Your task to perform on an android device: Open Google Maps and go to "Timeline" Image 0: 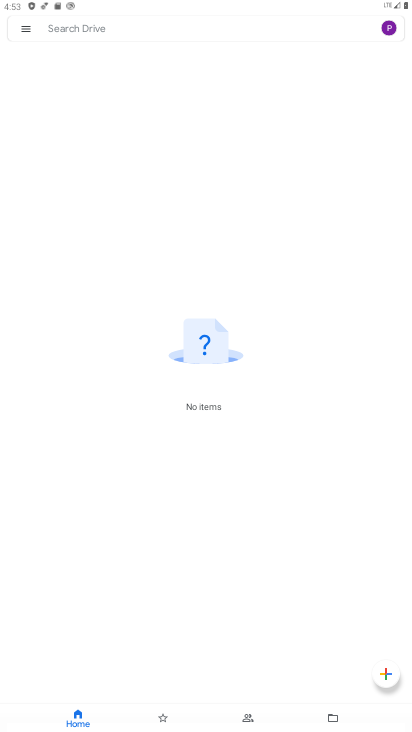
Step 0: press home button
Your task to perform on an android device: Open Google Maps and go to "Timeline" Image 1: 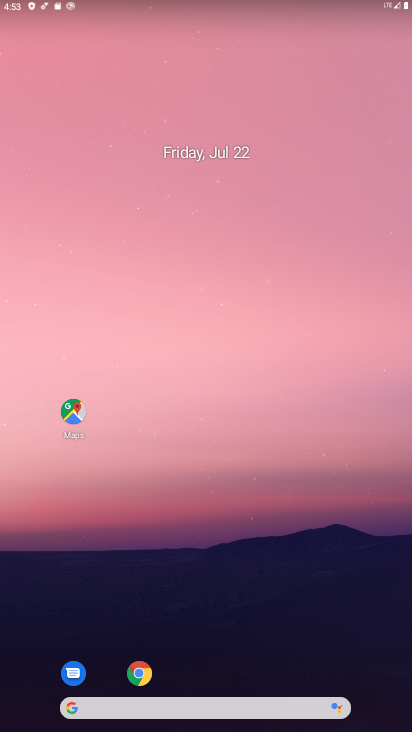
Step 1: click (63, 405)
Your task to perform on an android device: Open Google Maps and go to "Timeline" Image 2: 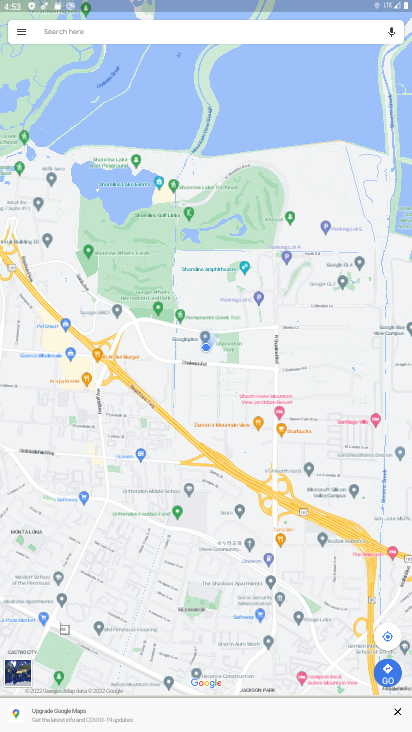
Step 2: click (24, 31)
Your task to perform on an android device: Open Google Maps and go to "Timeline" Image 3: 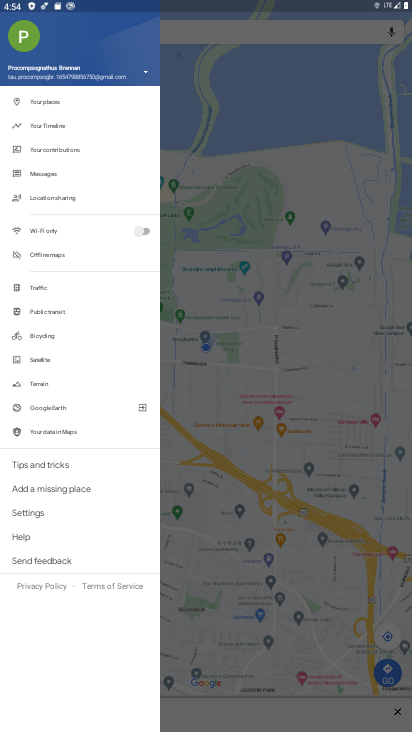
Step 3: click (60, 120)
Your task to perform on an android device: Open Google Maps and go to "Timeline" Image 4: 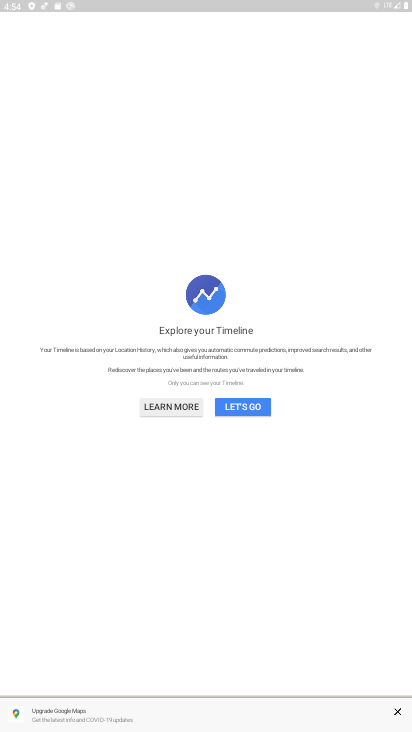
Step 4: click (234, 401)
Your task to perform on an android device: Open Google Maps and go to "Timeline" Image 5: 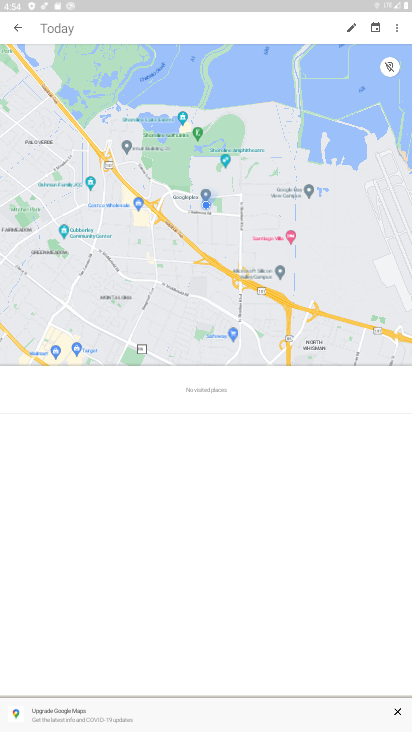
Step 5: task complete